Your task to perform on an android device: toggle show notifications on the lock screen Image 0: 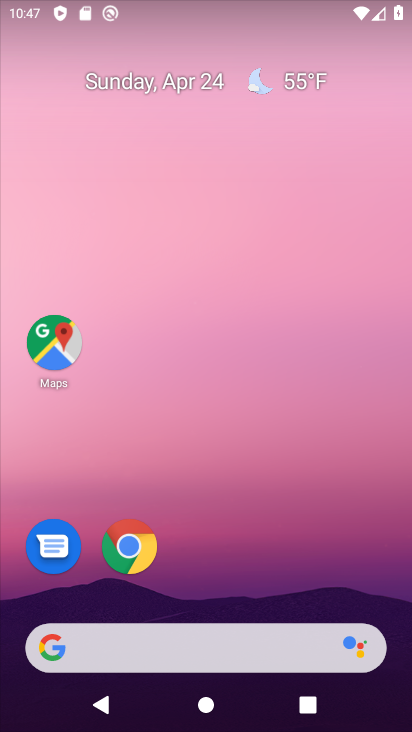
Step 0: drag from (241, 525) to (339, 1)
Your task to perform on an android device: toggle show notifications on the lock screen Image 1: 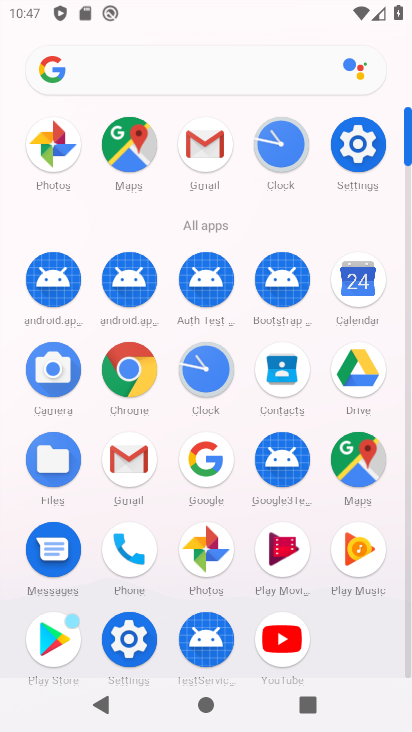
Step 1: click (357, 144)
Your task to perform on an android device: toggle show notifications on the lock screen Image 2: 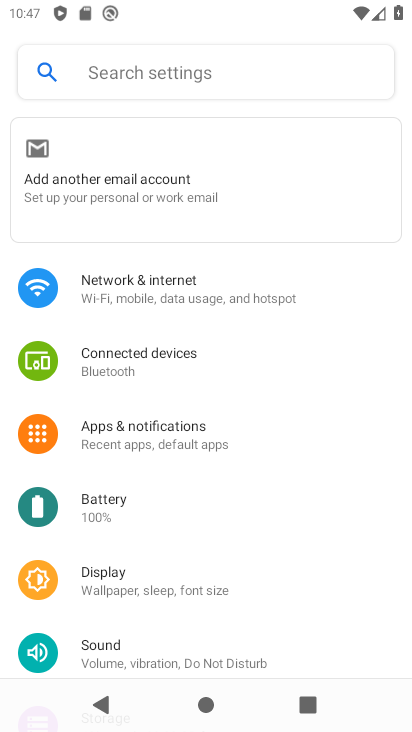
Step 2: click (153, 428)
Your task to perform on an android device: toggle show notifications on the lock screen Image 3: 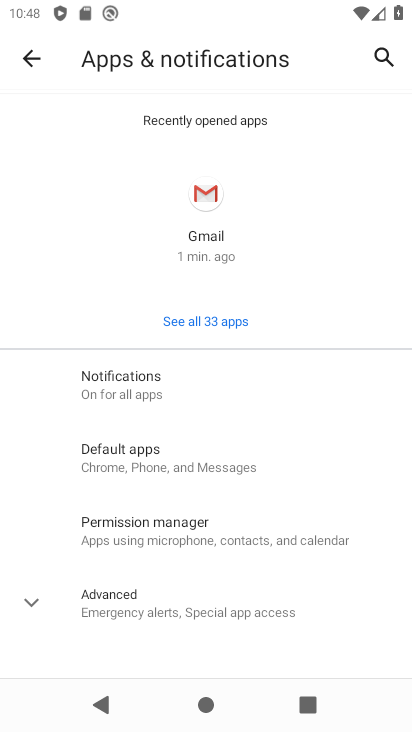
Step 3: click (142, 378)
Your task to perform on an android device: toggle show notifications on the lock screen Image 4: 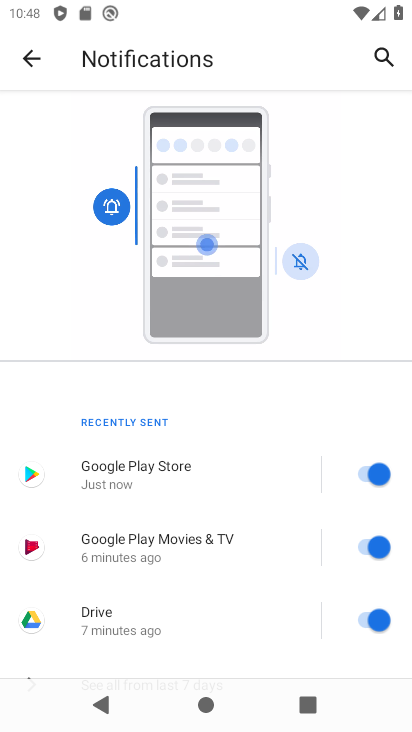
Step 4: drag from (198, 418) to (233, 295)
Your task to perform on an android device: toggle show notifications on the lock screen Image 5: 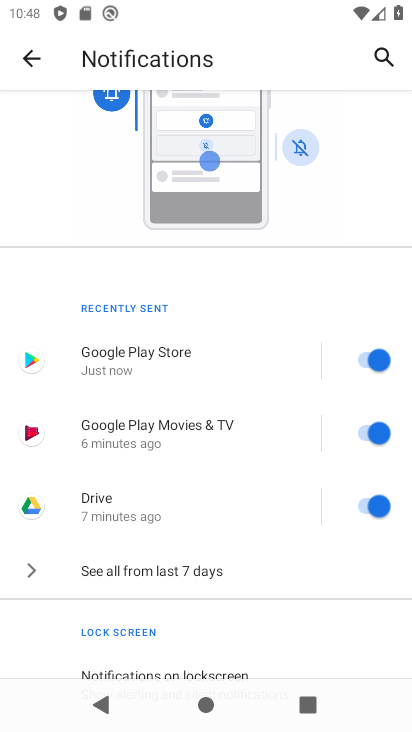
Step 5: drag from (213, 382) to (269, 260)
Your task to perform on an android device: toggle show notifications on the lock screen Image 6: 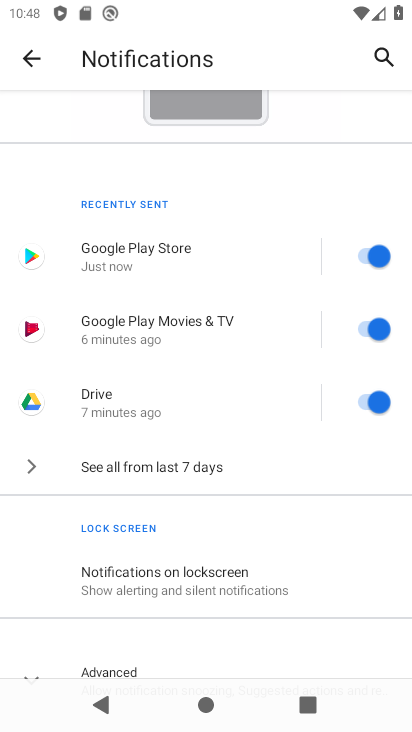
Step 6: click (187, 571)
Your task to perform on an android device: toggle show notifications on the lock screen Image 7: 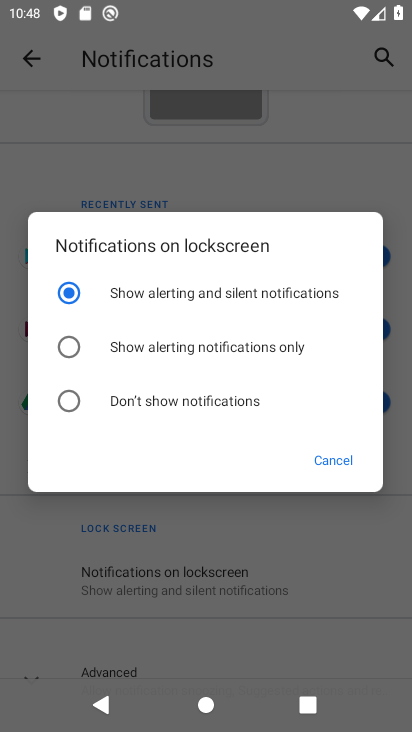
Step 7: click (64, 400)
Your task to perform on an android device: toggle show notifications on the lock screen Image 8: 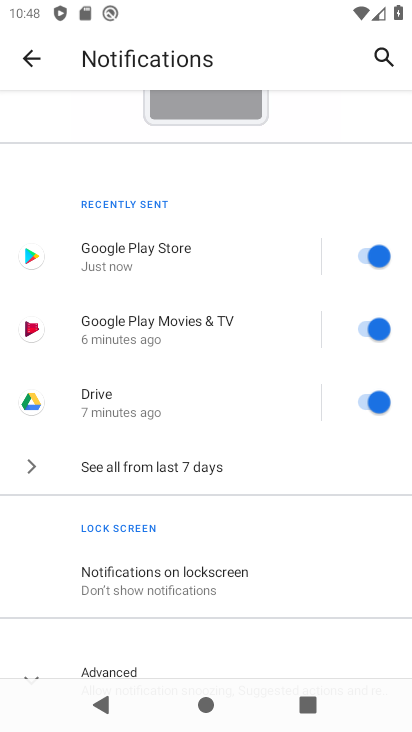
Step 8: task complete